Your task to perform on an android device: Play the last video I watched on Youtube Image 0: 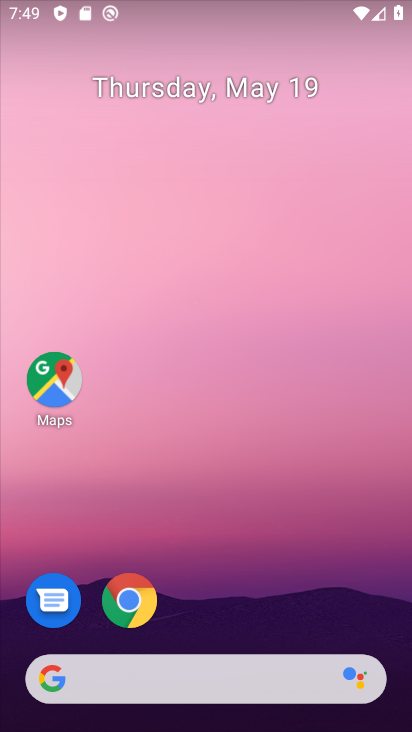
Step 0: drag from (219, 615) to (209, 61)
Your task to perform on an android device: Play the last video I watched on Youtube Image 1: 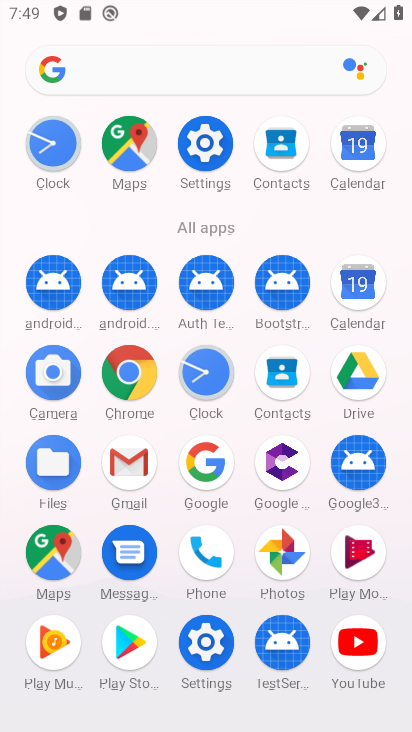
Step 1: click (363, 651)
Your task to perform on an android device: Play the last video I watched on Youtube Image 2: 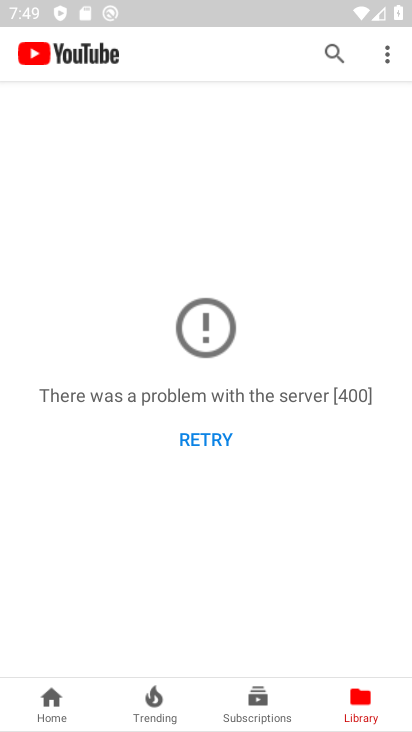
Step 2: task complete